Your task to perform on an android device: turn on data saver in the chrome app Image 0: 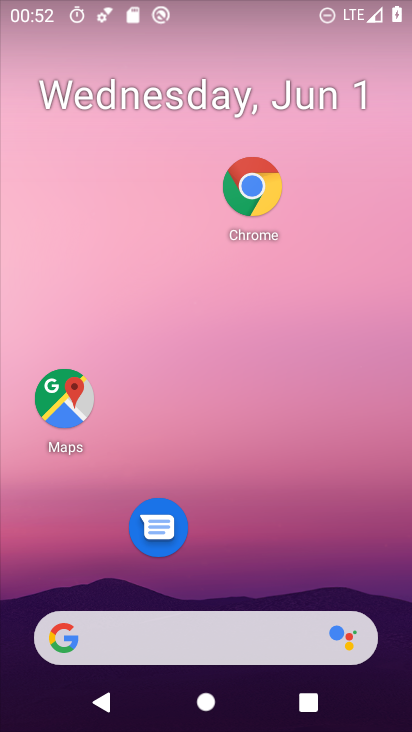
Step 0: drag from (225, 586) to (175, 154)
Your task to perform on an android device: turn on data saver in the chrome app Image 1: 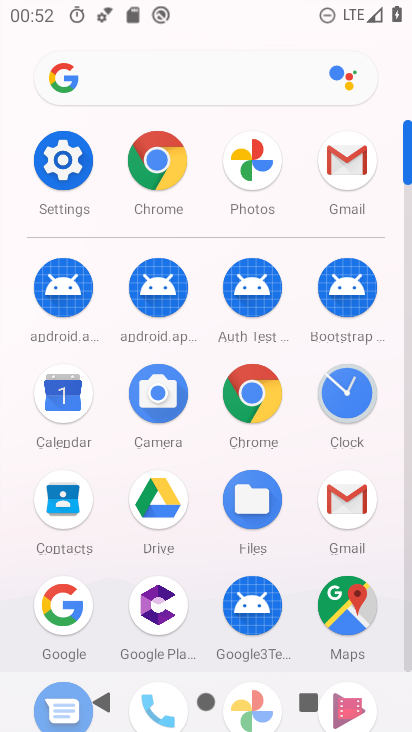
Step 1: click (252, 381)
Your task to perform on an android device: turn on data saver in the chrome app Image 2: 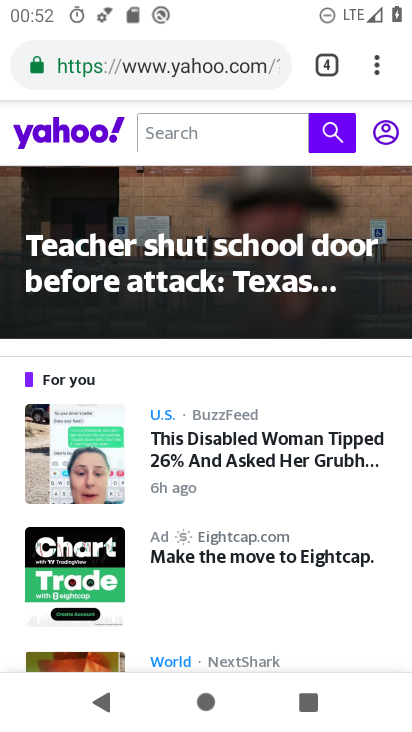
Step 2: drag from (368, 66) to (198, 585)
Your task to perform on an android device: turn on data saver in the chrome app Image 3: 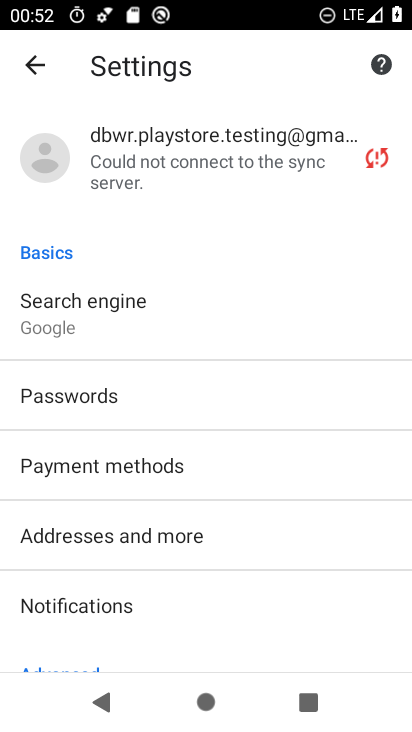
Step 3: drag from (184, 629) to (244, 53)
Your task to perform on an android device: turn on data saver in the chrome app Image 4: 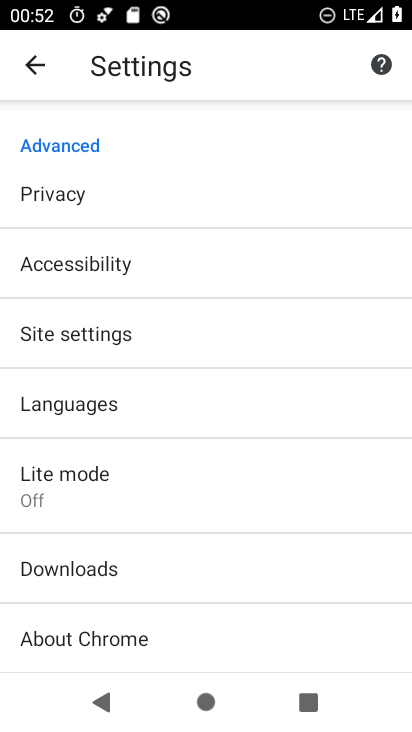
Step 4: click (144, 348)
Your task to perform on an android device: turn on data saver in the chrome app Image 5: 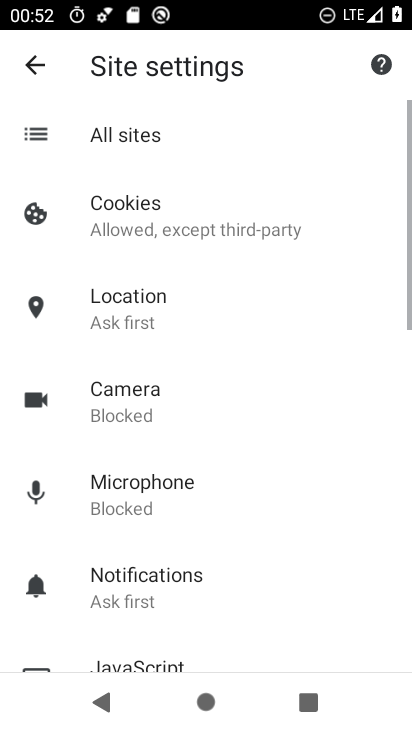
Step 5: click (23, 59)
Your task to perform on an android device: turn on data saver in the chrome app Image 6: 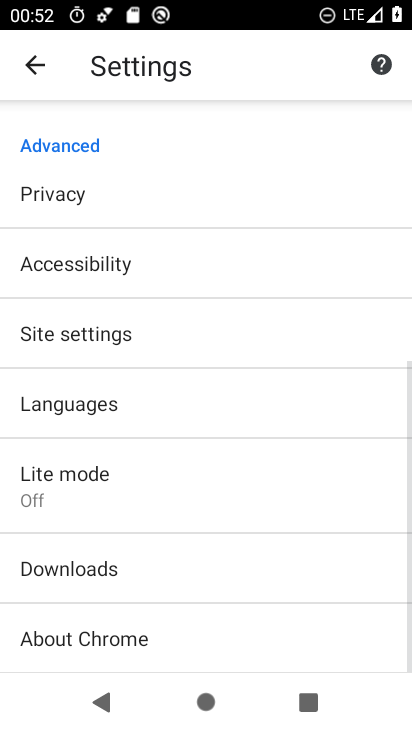
Step 6: click (140, 488)
Your task to perform on an android device: turn on data saver in the chrome app Image 7: 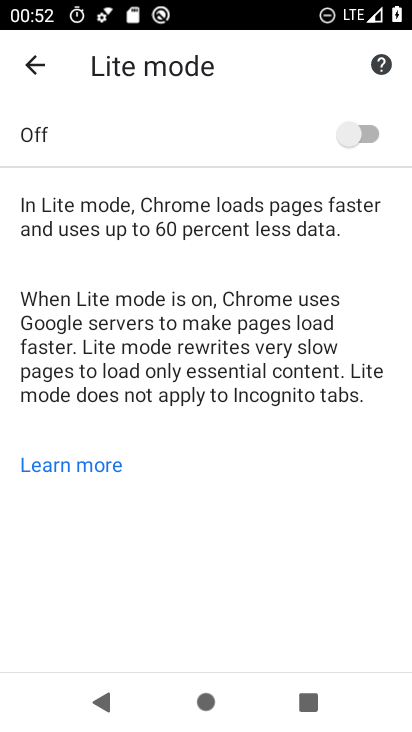
Step 7: click (323, 142)
Your task to perform on an android device: turn on data saver in the chrome app Image 8: 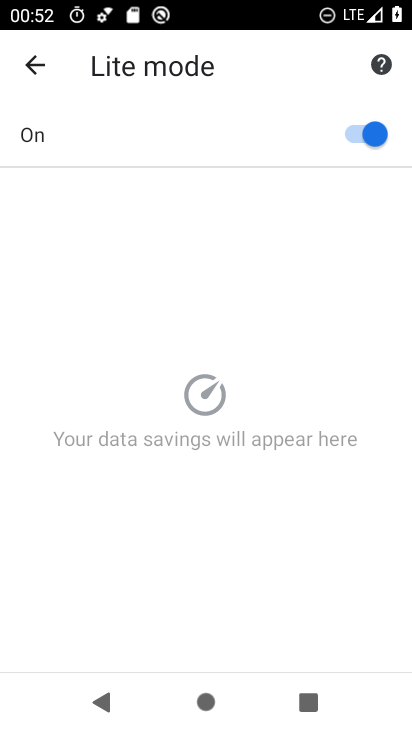
Step 8: task complete